Your task to perform on an android device: Go to battery settings Image 0: 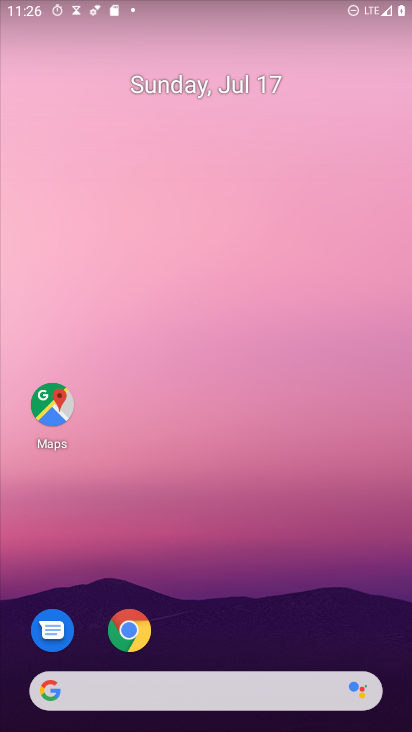
Step 0: drag from (270, 669) to (410, 380)
Your task to perform on an android device: Go to battery settings Image 1: 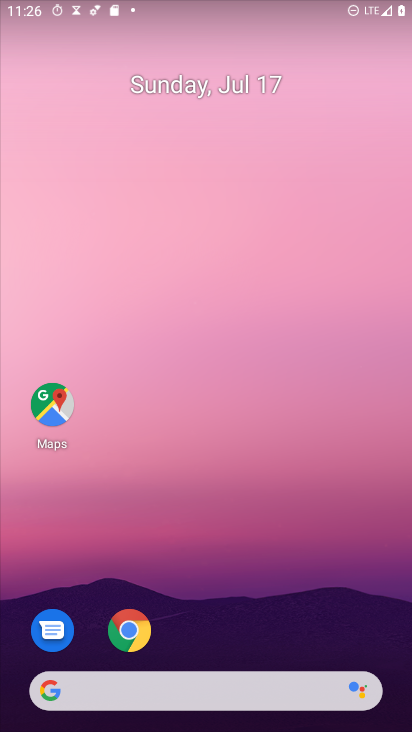
Step 1: drag from (267, 671) to (327, 75)
Your task to perform on an android device: Go to battery settings Image 2: 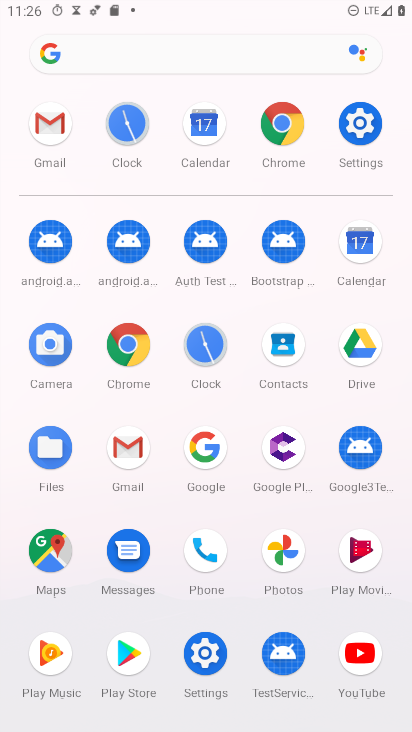
Step 2: click (361, 117)
Your task to perform on an android device: Go to battery settings Image 3: 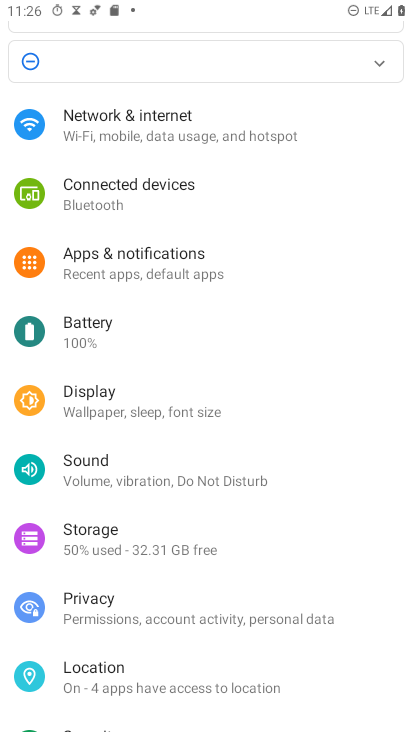
Step 3: click (95, 317)
Your task to perform on an android device: Go to battery settings Image 4: 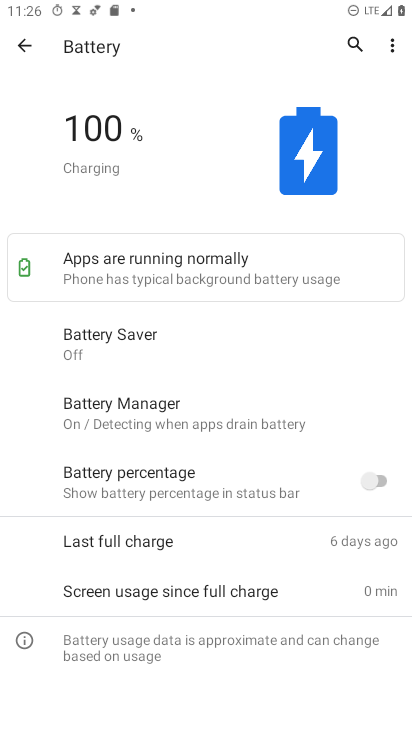
Step 4: task complete